Your task to perform on an android device: turn notification dots on Image 0: 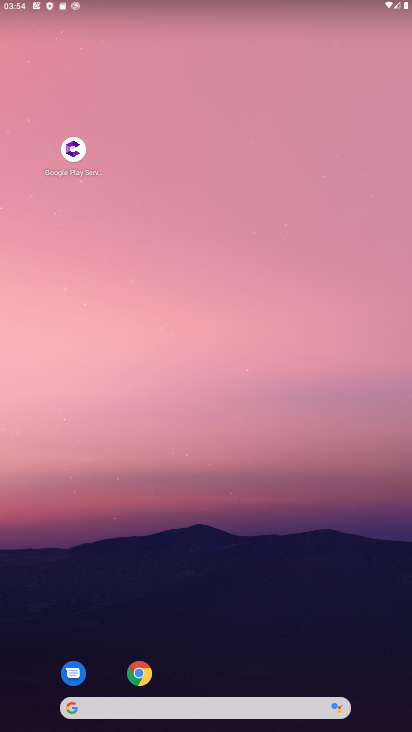
Step 0: drag from (295, 491) to (262, 70)
Your task to perform on an android device: turn notification dots on Image 1: 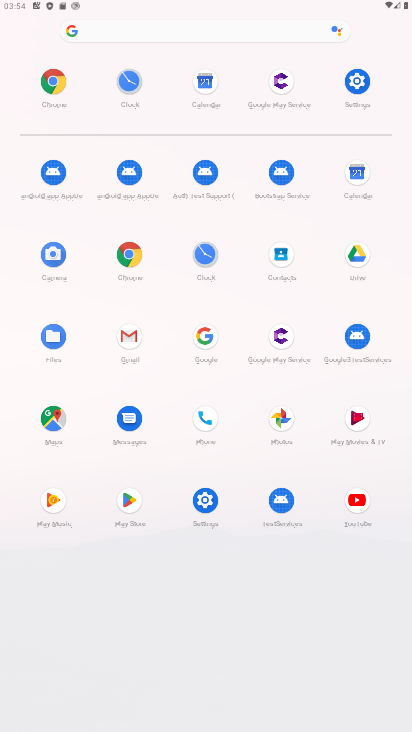
Step 1: click (369, 78)
Your task to perform on an android device: turn notification dots on Image 2: 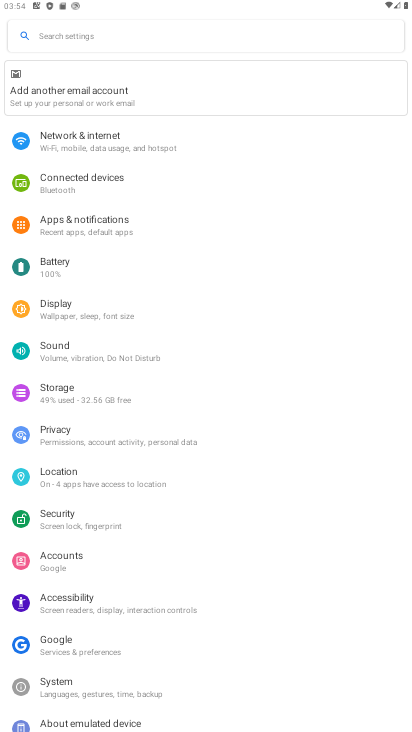
Step 2: click (106, 224)
Your task to perform on an android device: turn notification dots on Image 3: 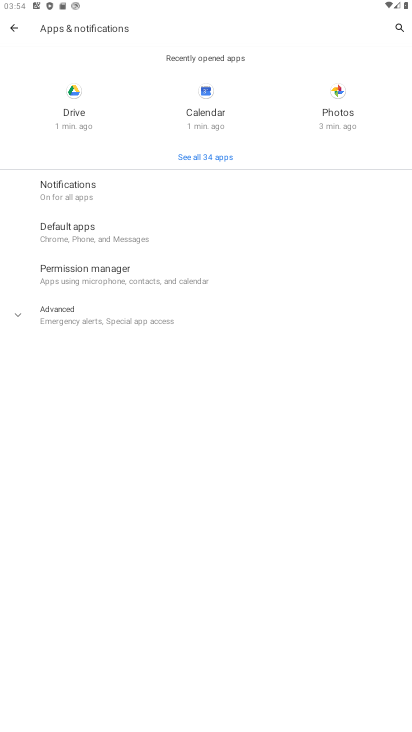
Step 3: click (93, 195)
Your task to perform on an android device: turn notification dots on Image 4: 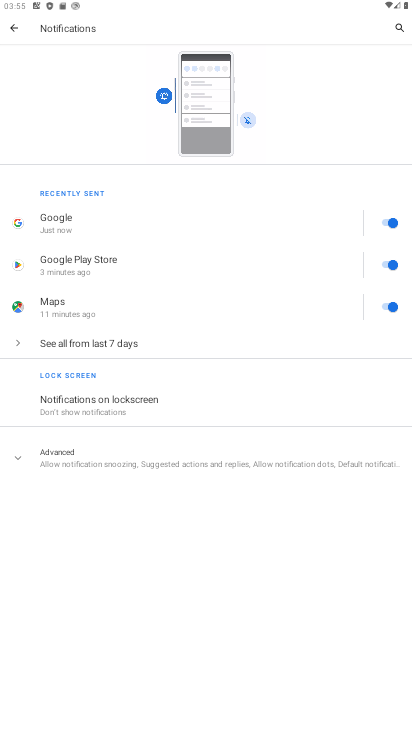
Step 4: click (111, 447)
Your task to perform on an android device: turn notification dots on Image 5: 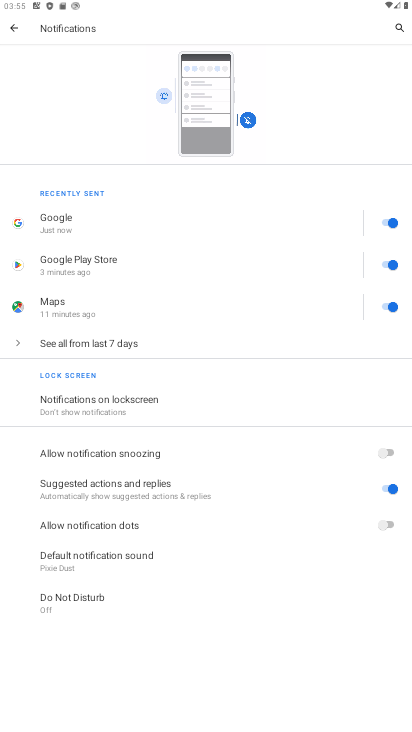
Step 5: click (374, 530)
Your task to perform on an android device: turn notification dots on Image 6: 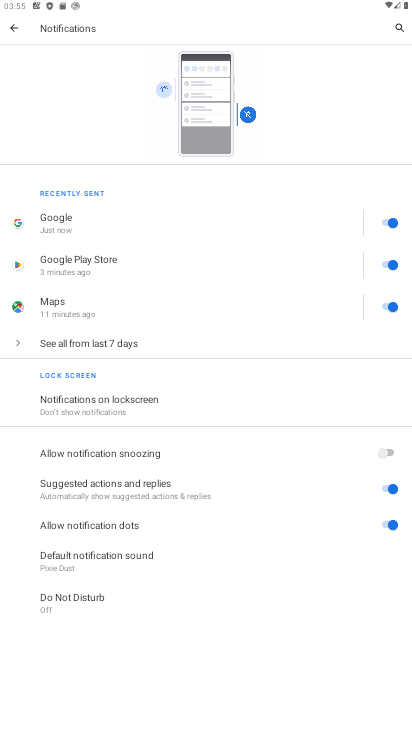
Step 6: task complete